Your task to perform on an android device: Go to notification settings Image 0: 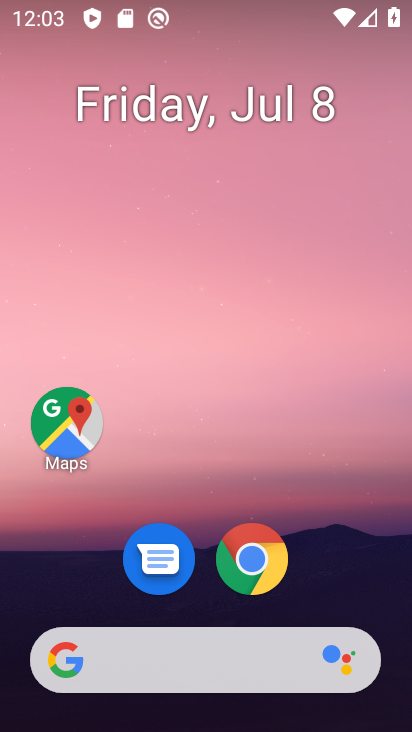
Step 0: drag from (197, 626) to (183, 28)
Your task to perform on an android device: Go to notification settings Image 1: 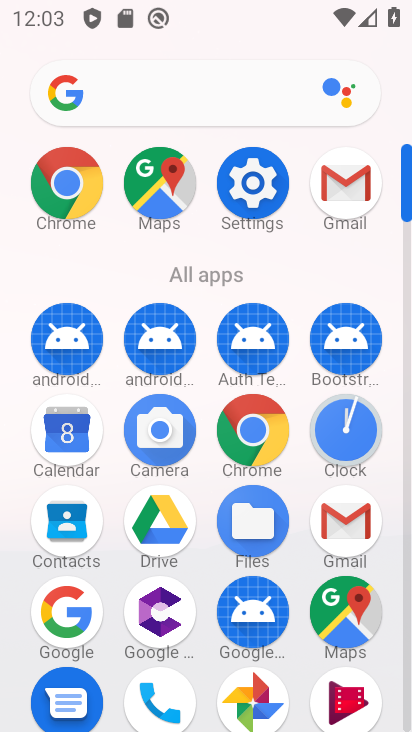
Step 1: click (263, 197)
Your task to perform on an android device: Go to notification settings Image 2: 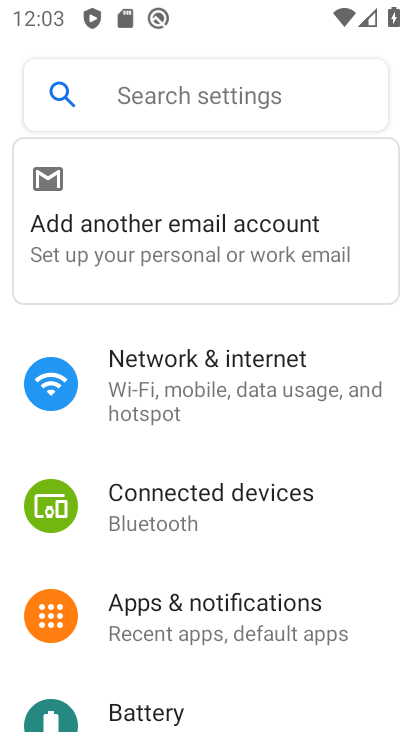
Step 2: click (228, 604)
Your task to perform on an android device: Go to notification settings Image 3: 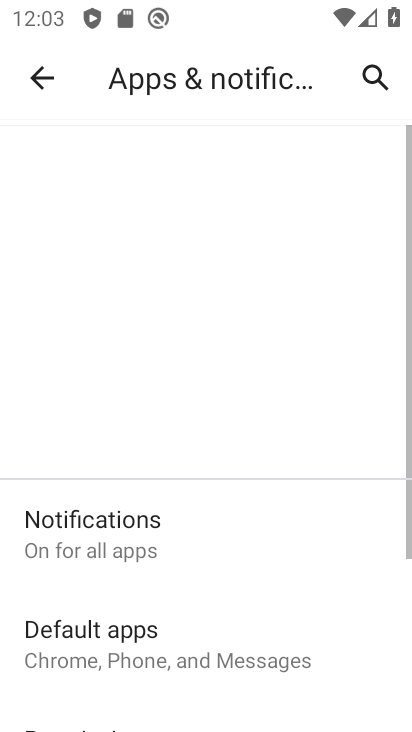
Step 3: click (191, 538)
Your task to perform on an android device: Go to notification settings Image 4: 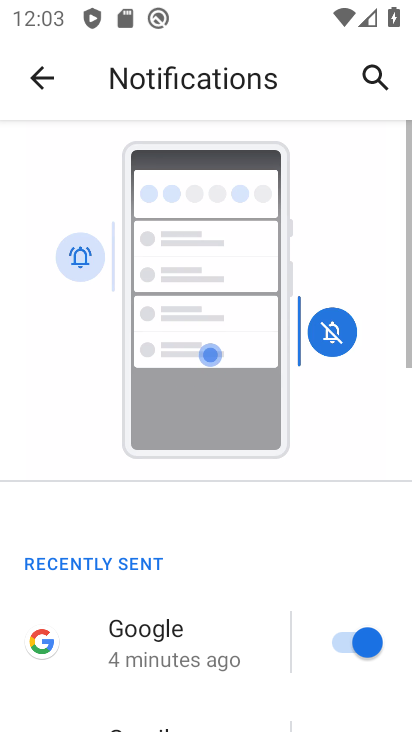
Step 4: task complete